Your task to perform on an android device: Do I have any events today? Image 0: 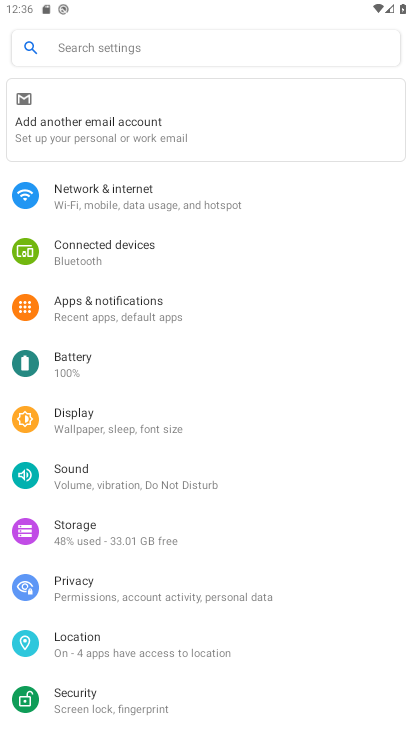
Step 0: press home button
Your task to perform on an android device: Do I have any events today? Image 1: 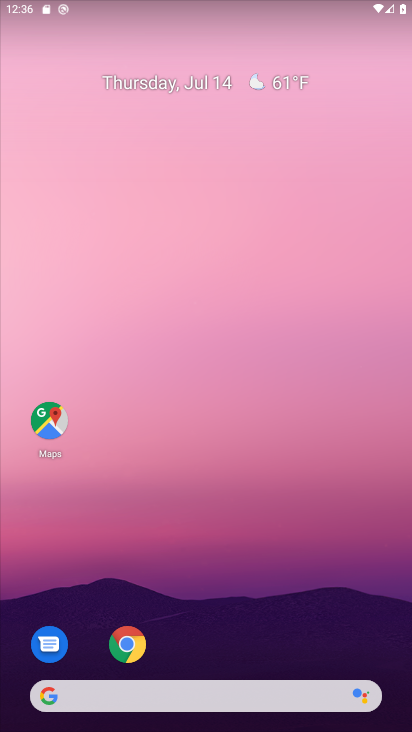
Step 1: drag from (294, 625) to (298, 40)
Your task to perform on an android device: Do I have any events today? Image 2: 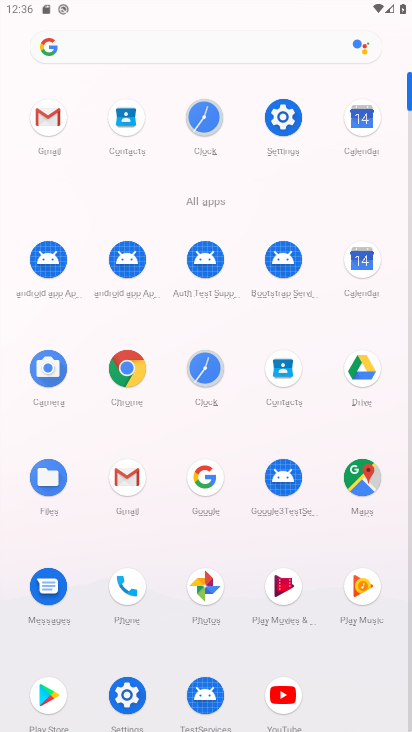
Step 2: click (368, 111)
Your task to perform on an android device: Do I have any events today? Image 3: 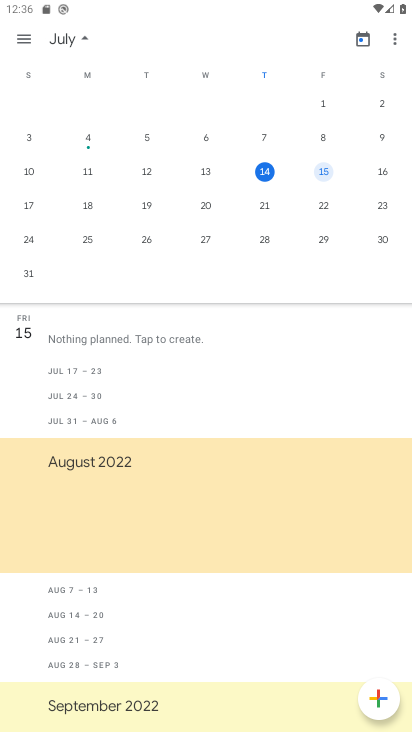
Step 3: click (272, 181)
Your task to perform on an android device: Do I have any events today? Image 4: 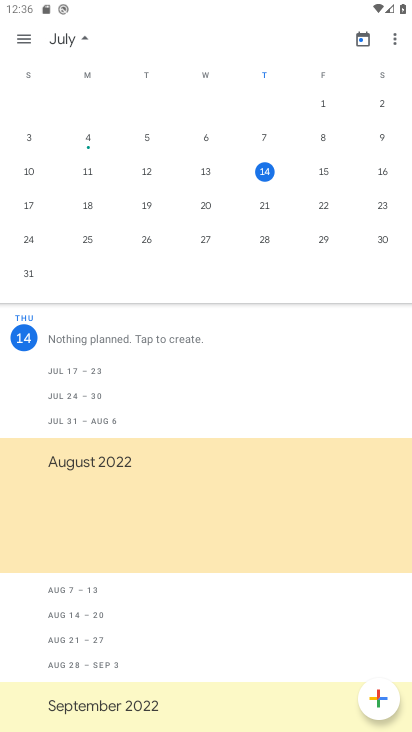
Step 4: task complete